Your task to perform on an android device: What's the weather going to be this weekend? Image 0: 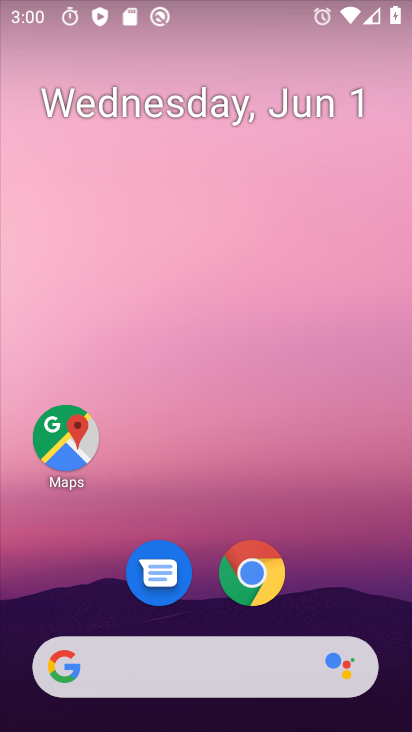
Step 0: drag from (207, 587) to (192, 204)
Your task to perform on an android device: What's the weather going to be this weekend? Image 1: 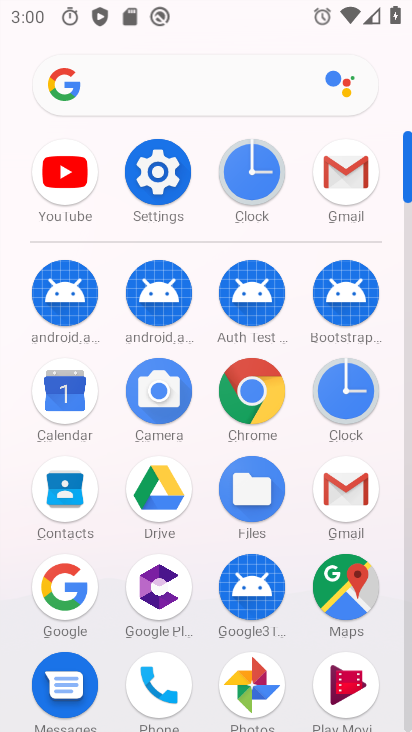
Step 1: click (78, 568)
Your task to perform on an android device: What's the weather going to be this weekend? Image 2: 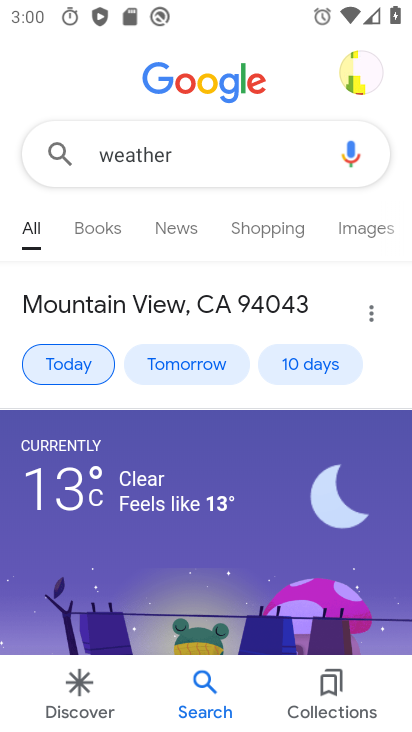
Step 2: click (291, 362)
Your task to perform on an android device: What's the weather going to be this weekend? Image 3: 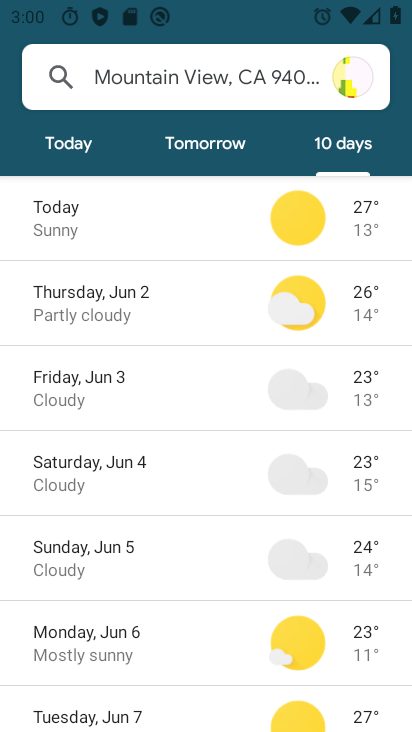
Step 3: task complete